Your task to perform on an android device: check battery use Image 0: 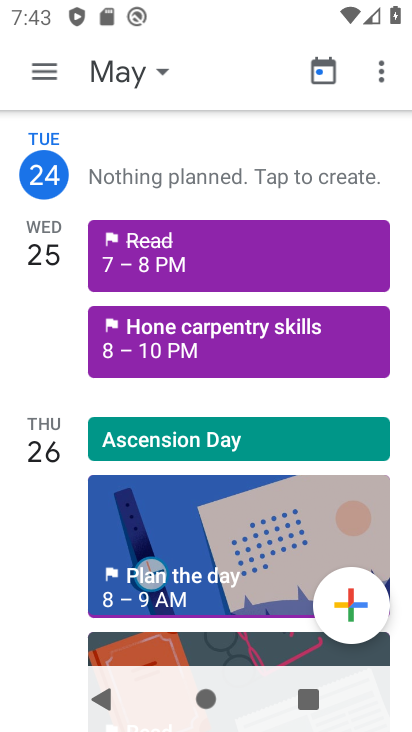
Step 0: press back button
Your task to perform on an android device: check battery use Image 1: 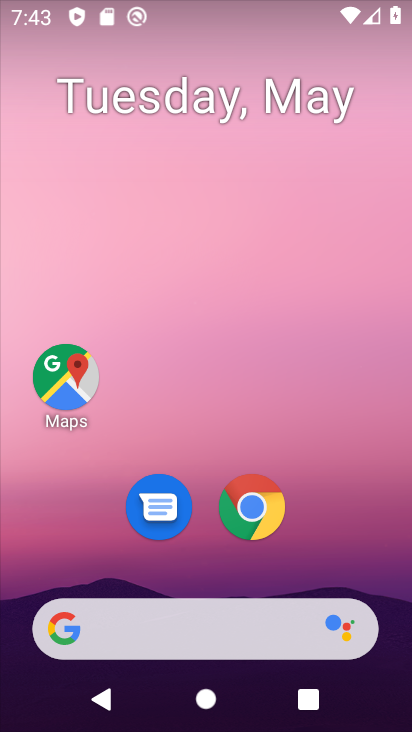
Step 1: drag from (357, 566) to (255, 4)
Your task to perform on an android device: check battery use Image 2: 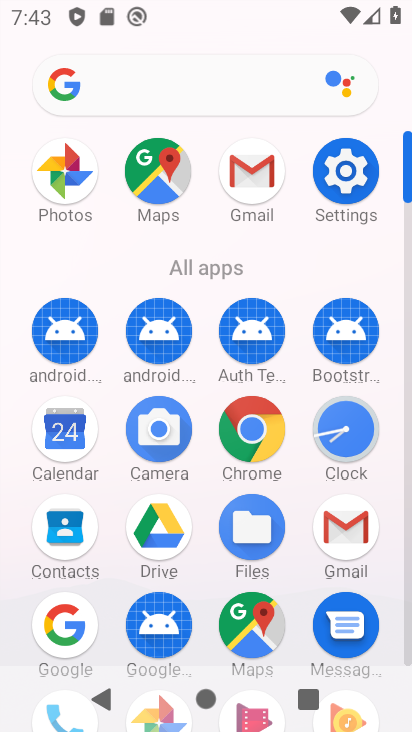
Step 2: click (9, 262)
Your task to perform on an android device: check battery use Image 3: 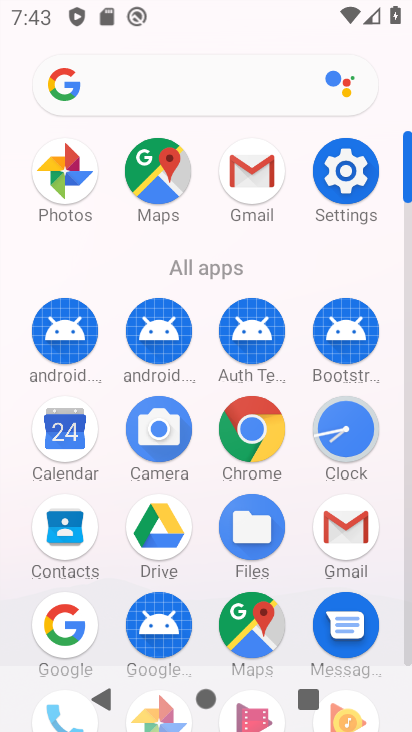
Step 3: click (344, 171)
Your task to perform on an android device: check battery use Image 4: 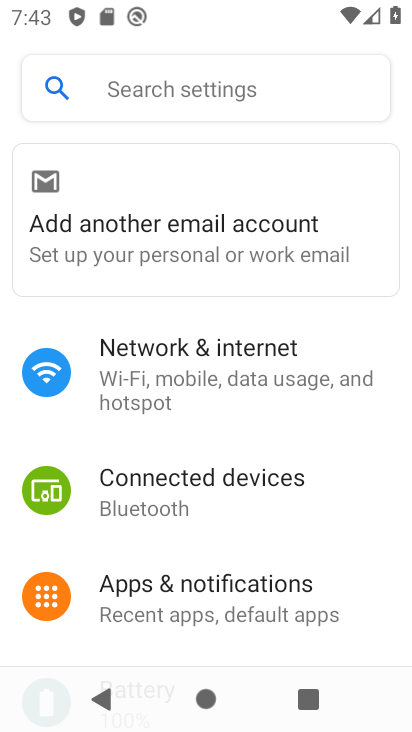
Step 4: drag from (331, 603) to (327, 227)
Your task to perform on an android device: check battery use Image 5: 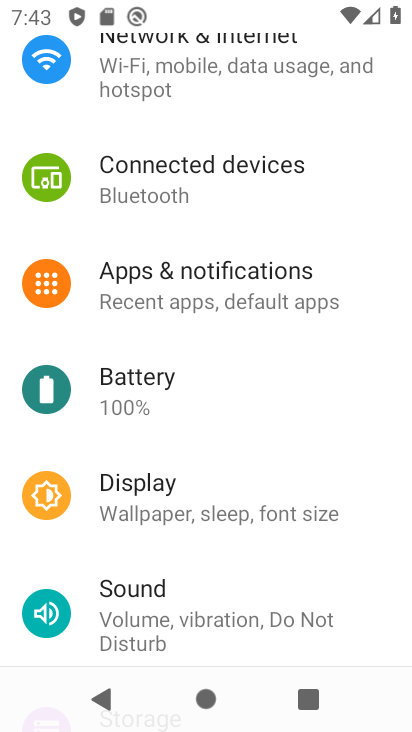
Step 5: drag from (274, 528) to (297, 187)
Your task to perform on an android device: check battery use Image 6: 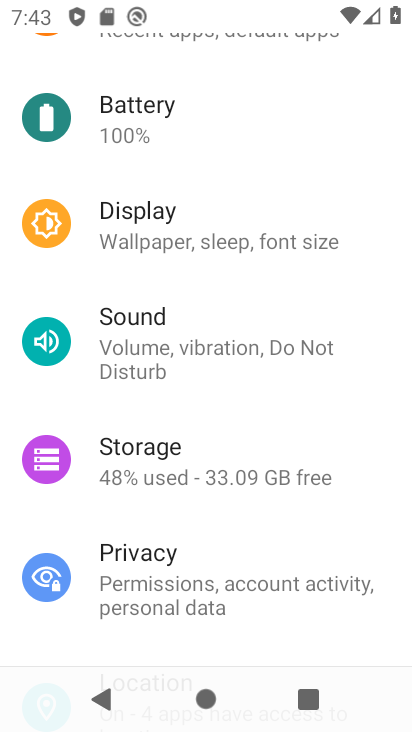
Step 6: drag from (293, 525) to (278, 174)
Your task to perform on an android device: check battery use Image 7: 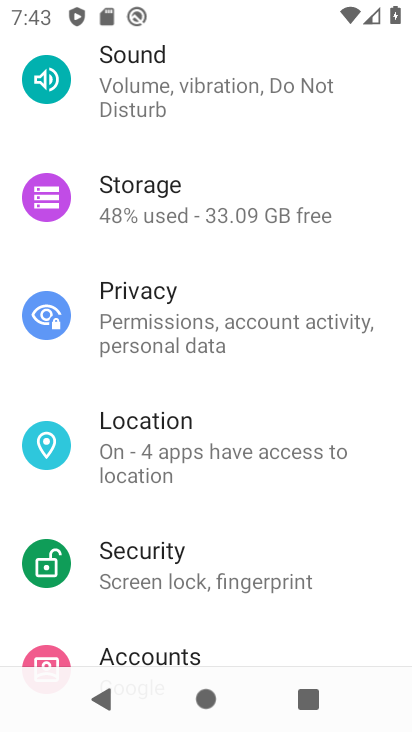
Step 7: drag from (224, 525) to (227, 88)
Your task to perform on an android device: check battery use Image 8: 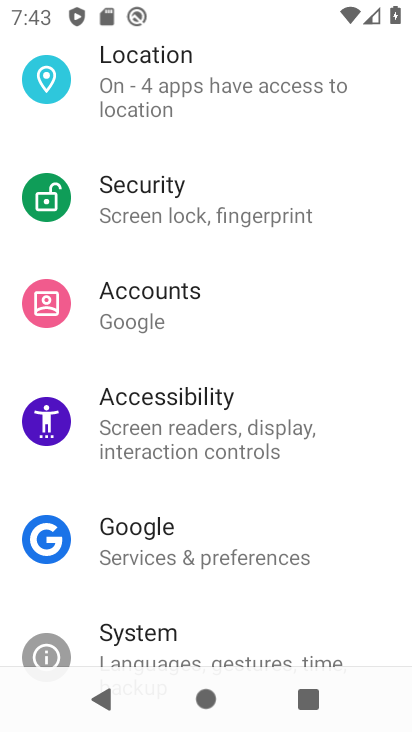
Step 8: click (216, 520)
Your task to perform on an android device: check battery use Image 9: 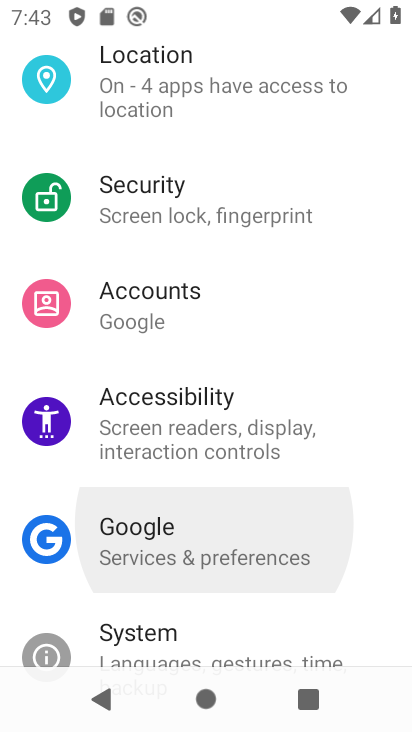
Step 9: drag from (234, 171) to (228, 575)
Your task to perform on an android device: check battery use Image 10: 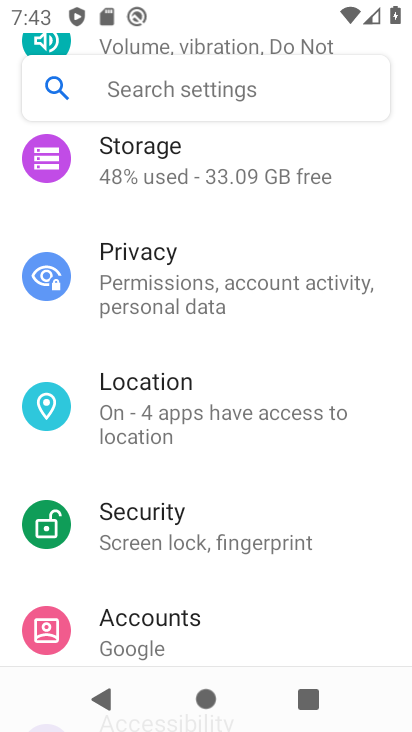
Step 10: drag from (277, 288) to (278, 569)
Your task to perform on an android device: check battery use Image 11: 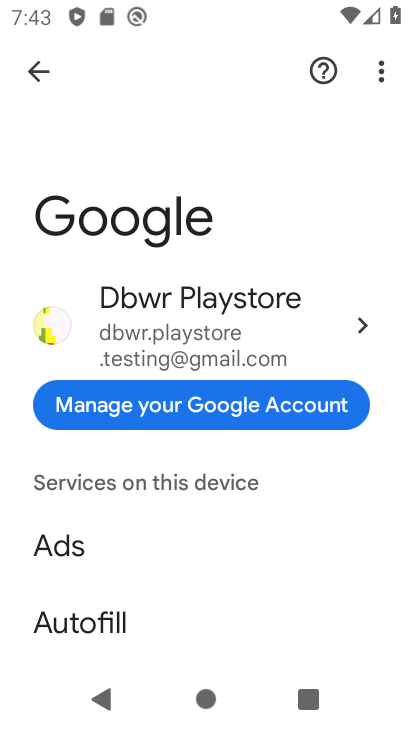
Step 11: click (38, 63)
Your task to perform on an android device: check battery use Image 12: 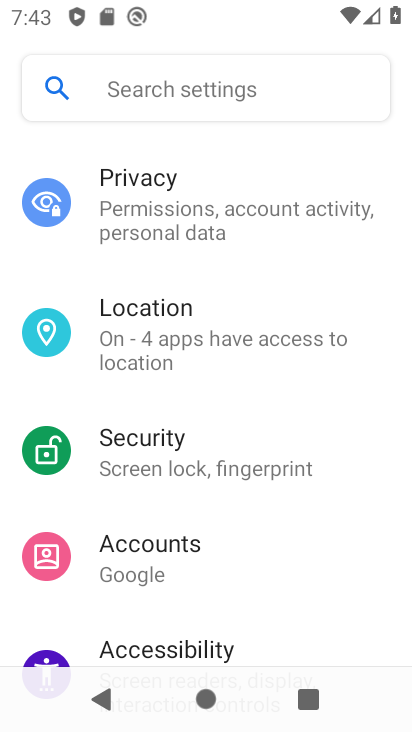
Step 12: drag from (269, 301) to (271, 566)
Your task to perform on an android device: check battery use Image 13: 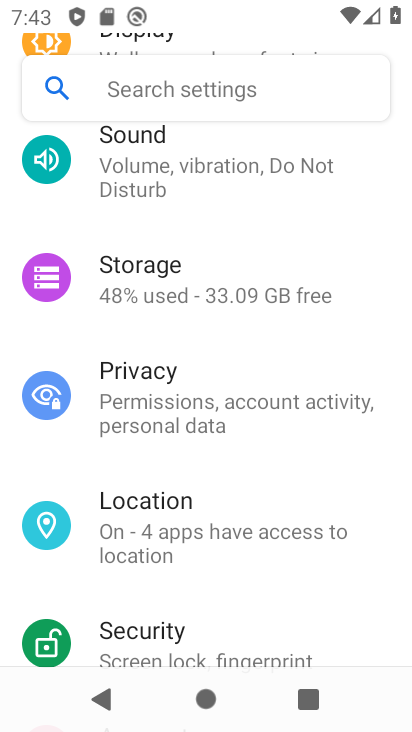
Step 13: drag from (276, 264) to (276, 551)
Your task to perform on an android device: check battery use Image 14: 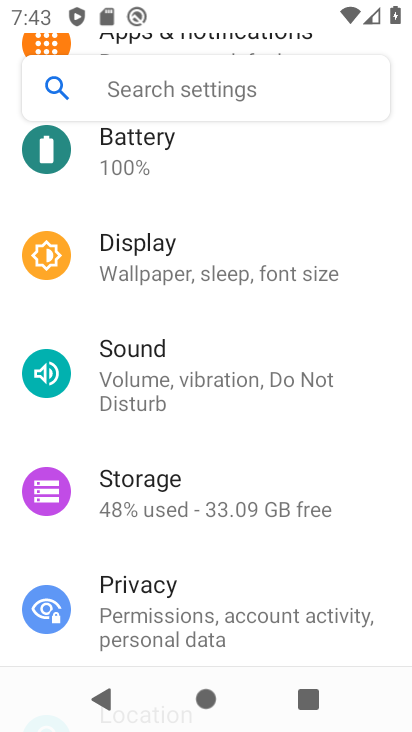
Step 14: drag from (280, 219) to (271, 574)
Your task to perform on an android device: check battery use Image 15: 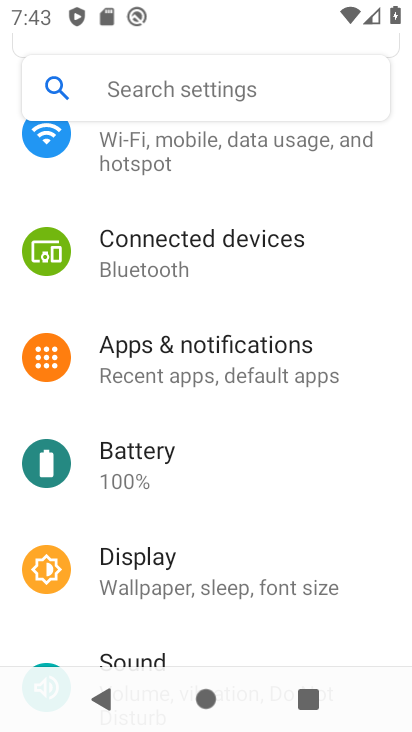
Step 15: click (205, 454)
Your task to perform on an android device: check battery use Image 16: 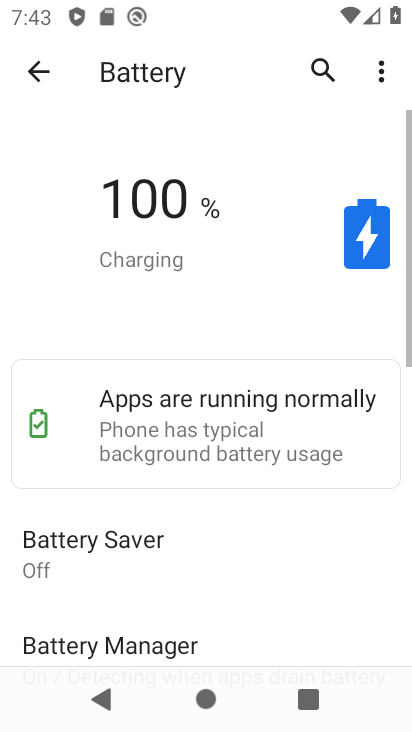
Step 16: task complete